Your task to perform on an android device: Go to display settings Image 0: 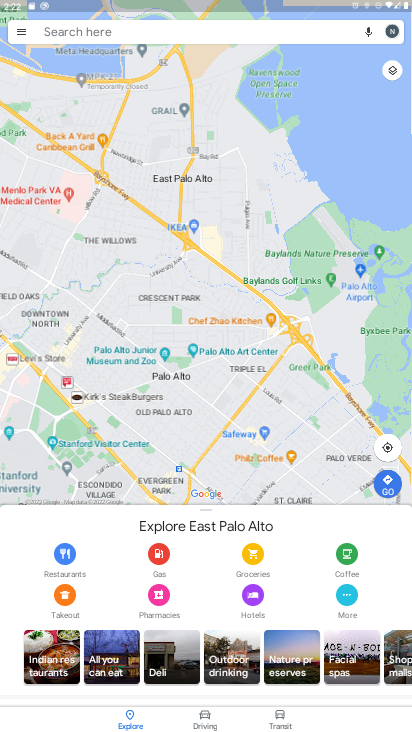
Step 0: press home button
Your task to perform on an android device: Go to display settings Image 1: 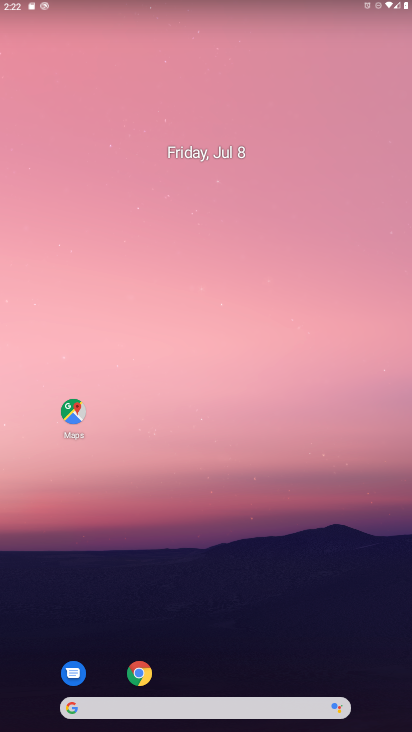
Step 1: drag from (386, 668) to (305, 122)
Your task to perform on an android device: Go to display settings Image 2: 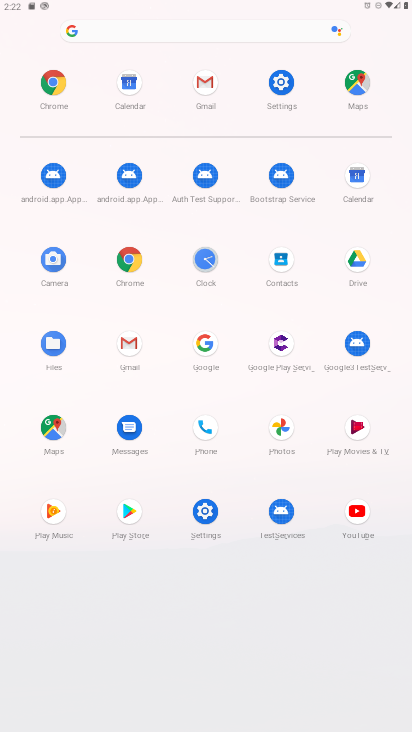
Step 2: click (277, 87)
Your task to perform on an android device: Go to display settings Image 3: 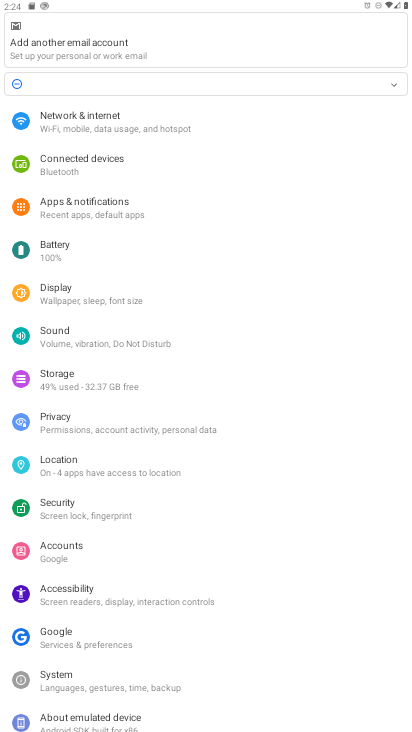
Step 3: click (91, 301)
Your task to perform on an android device: Go to display settings Image 4: 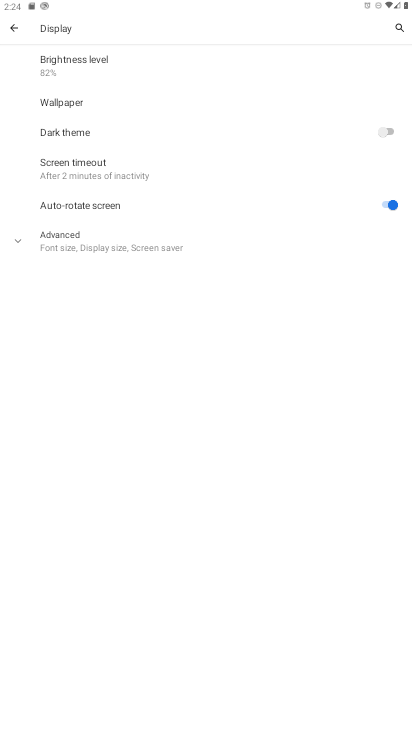
Step 4: task complete